Your task to perform on an android device: Play the last video I watched on Youtube Image 0: 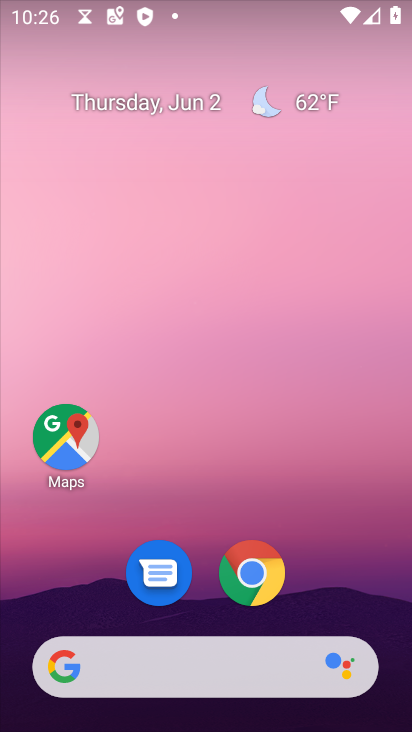
Step 0: drag from (346, 517) to (275, 224)
Your task to perform on an android device: Play the last video I watched on Youtube Image 1: 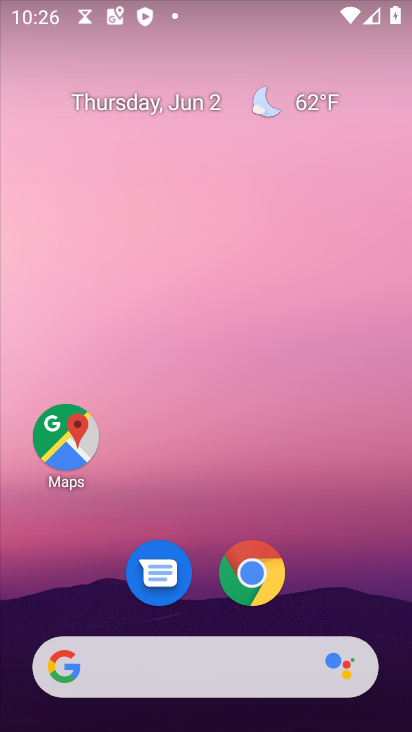
Step 1: drag from (327, 510) to (343, 81)
Your task to perform on an android device: Play the last video I watched on Youtube Image 2: 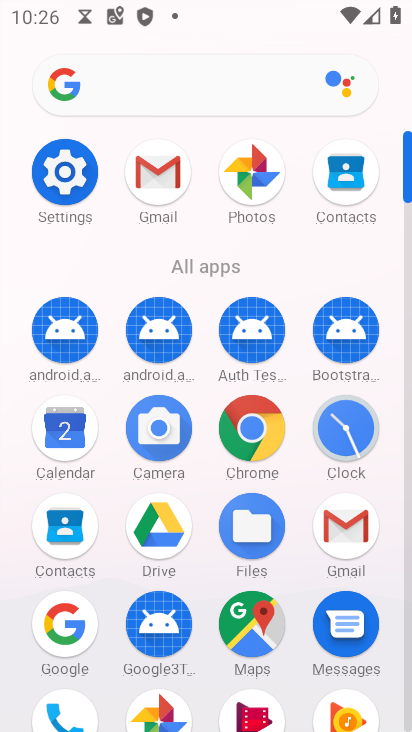
Step 2: drag from (298, 273) to (310, 46)
Your task to perform on an android device: Play the last video I watched on Youtube Image 3: 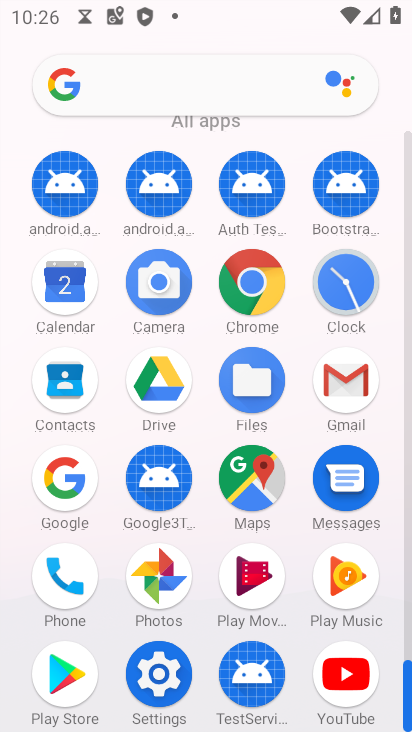
Step 3: click (344, 672)
Your task to perform on an android device: Play the last video I watched on Youtube Image 4: 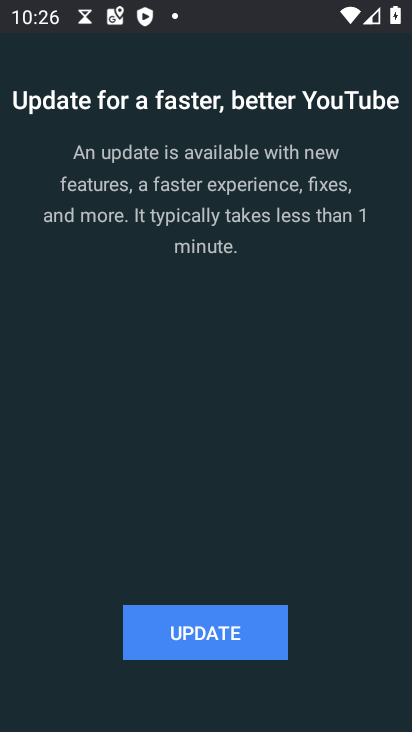
Step 4: click (208, 638)
Your task to perform on an android device: Play the last video I watched on Youtube Image 5: 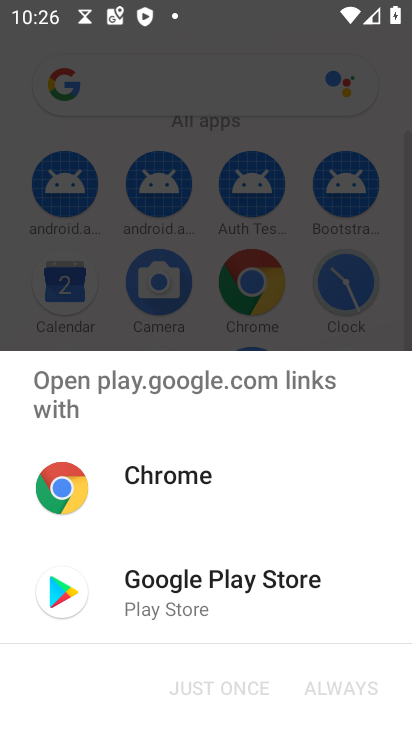
Step 5: click (179, 602)
Your task to perform on an android device: Play the last video I watched on Youtube Image 6: 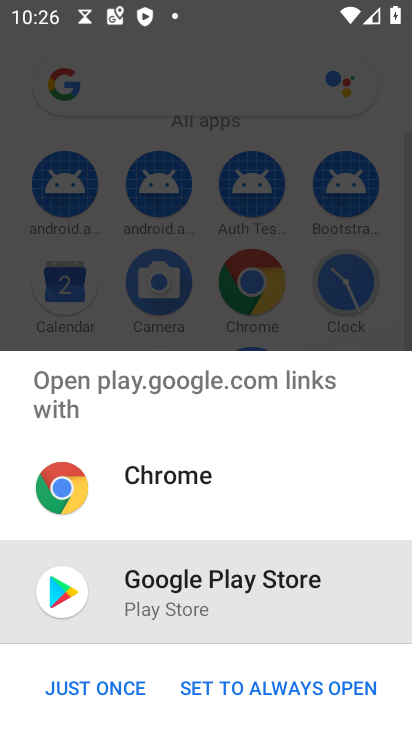
Step 6: click (83, 692)
Your task to perform on an android device: Play the last video I watched on Youtube Image 7: 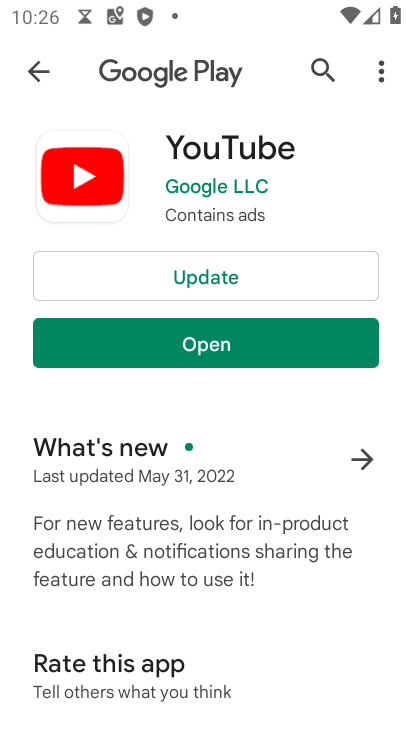
Step 7: click (190, 281)
Your task to perform on an android device: Play the last video I watched on Youtube Image 8: 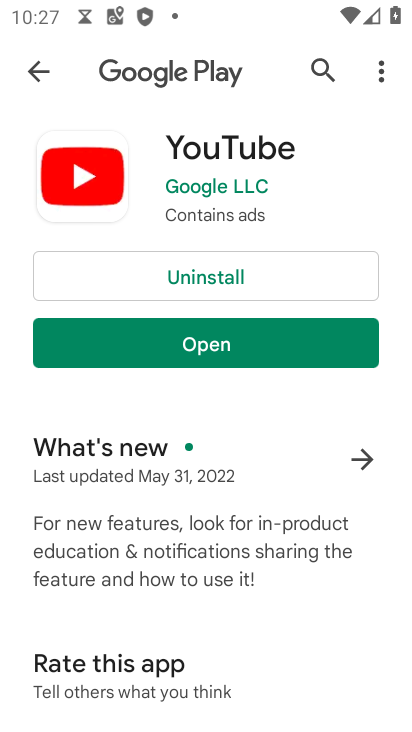
Step 8: click (241, 343)
Your task to perform on an android device: Play the last video I watched on Youtube Image 9: 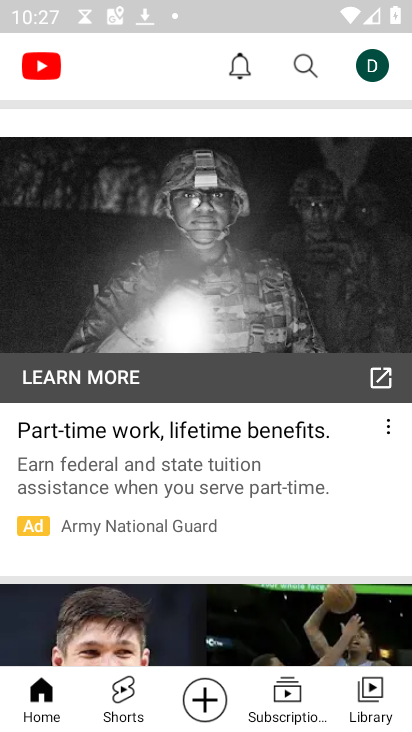
Step 9: click (368, 689)
Your task to perform on an android device: Play the last video I watched on Youtube Image 10: 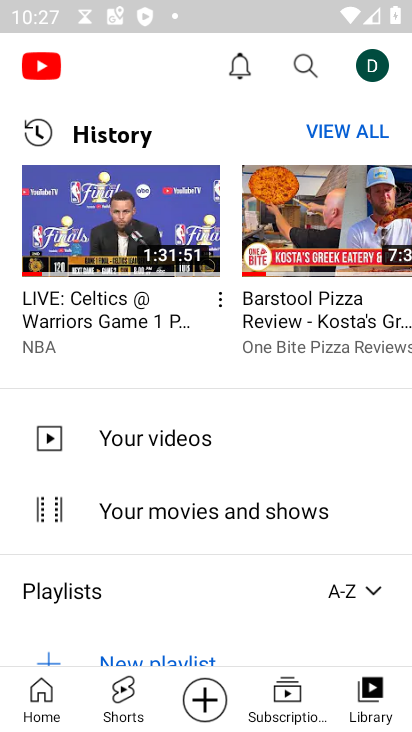
Step 10: click (120, 233)
Your task to perform on an android device: Play the last video I watched on Youtube Image 11: 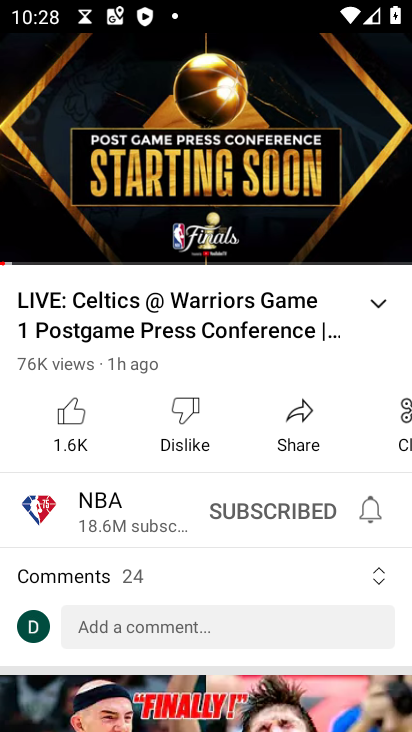
Step 11: click (201, 159)
Your task to perform on an android device: Play the last video I watched on Youtube Image 12: 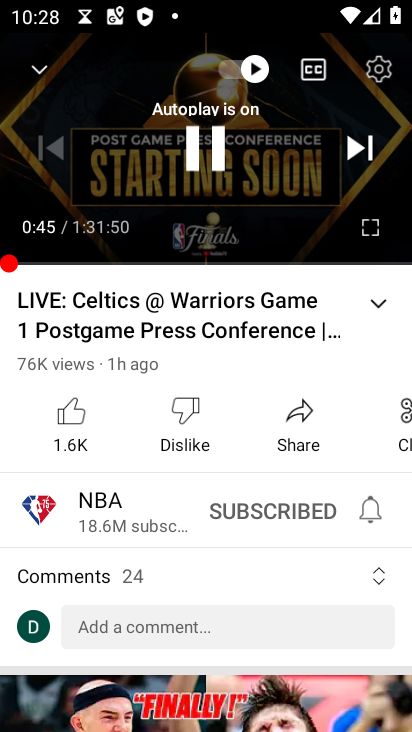
Step 12: click (206, 149)
Your task to perform on an android device: Play the last video I watched on Youtube Image 13: 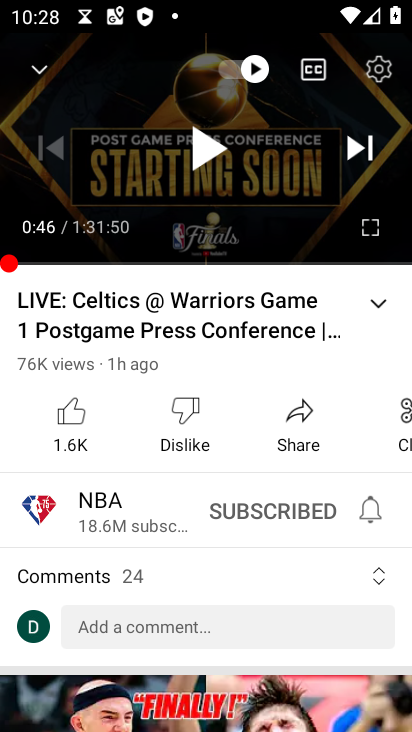
Step 13: task complete